Your task to perform on an android device: Open maps Image 0: 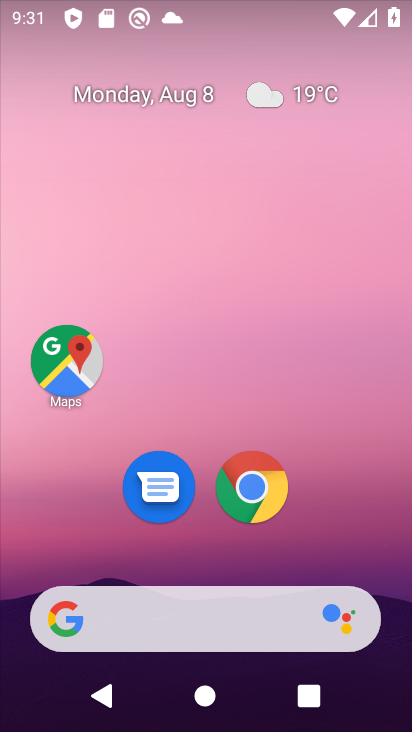
Step 0: click (77, 360)
Your task to perform on an android device: Open maps Image 1: 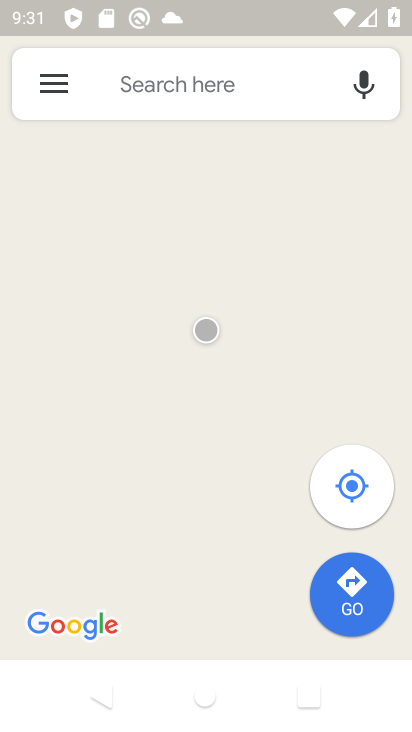
Step 1: task complete